Your task to perform on an android device: find which apps use the phone's location Image 0: 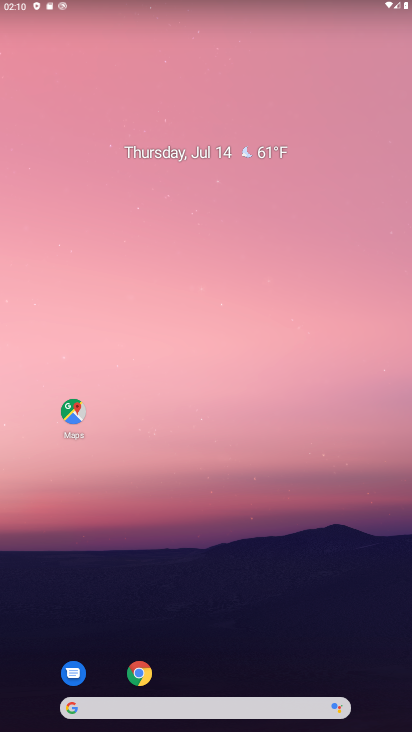
Step 0: drag from (284, 659) to (300, 143)
Your task to perform on an android device: find which apps use the phone's location Image 1: 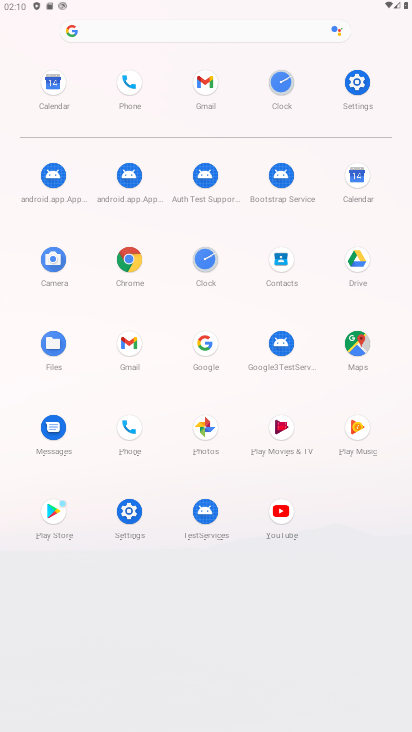
Step 1: click (373, 86)
Your task to perform on an android device: find which apps use the phone's location Image 2: 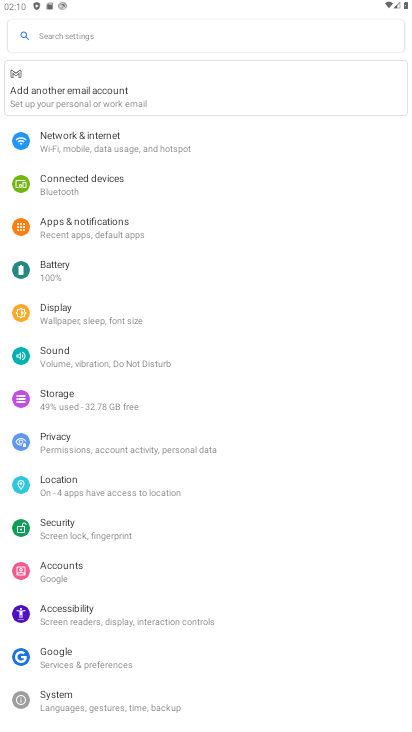
Step 2: click (177, 485)
Your task to perform on an android device: find which apps use the phone's location Image 3: 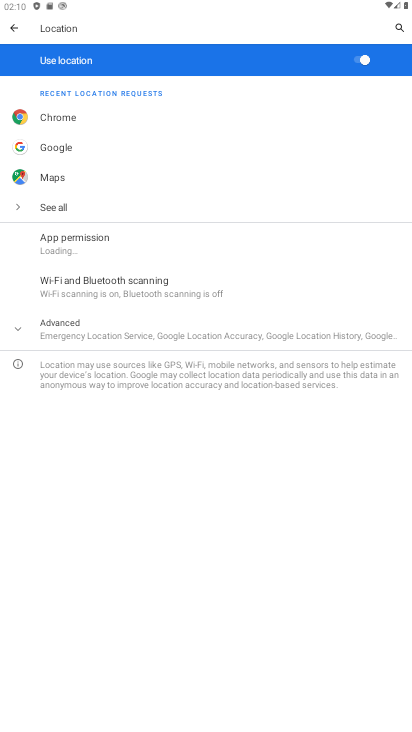
Step 3: task complete